Your task to perform on an android device: open a new tab in the chrome app Image 0: 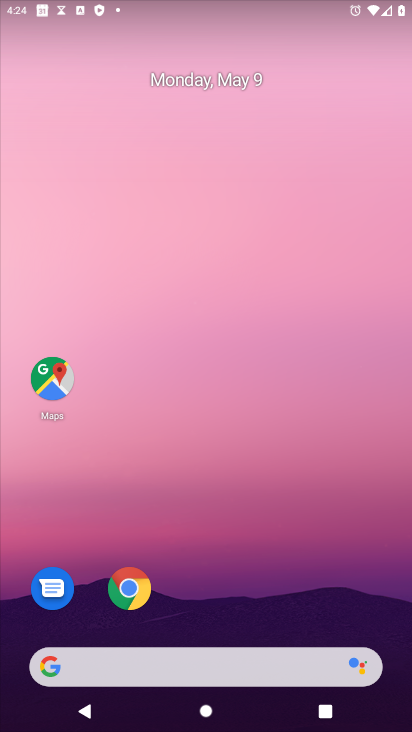
Step 0: click (133, 608)
Your task to perform on an android device: open a new tab in the chrome app Image 1: 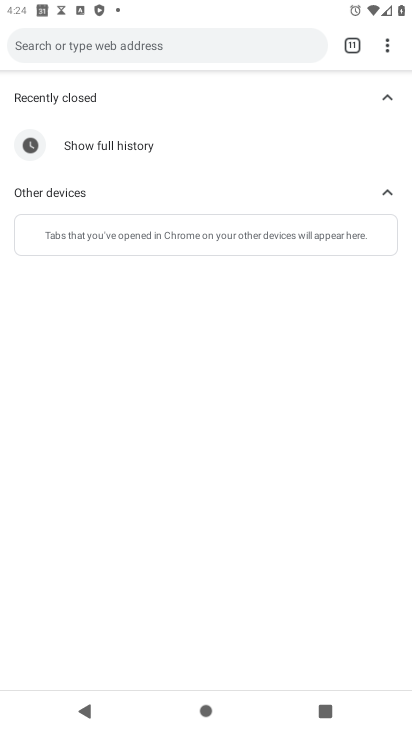
Step 1: click (387, 42)
Your task to perform on an android device: open a new tab in the chrome app Image 2: 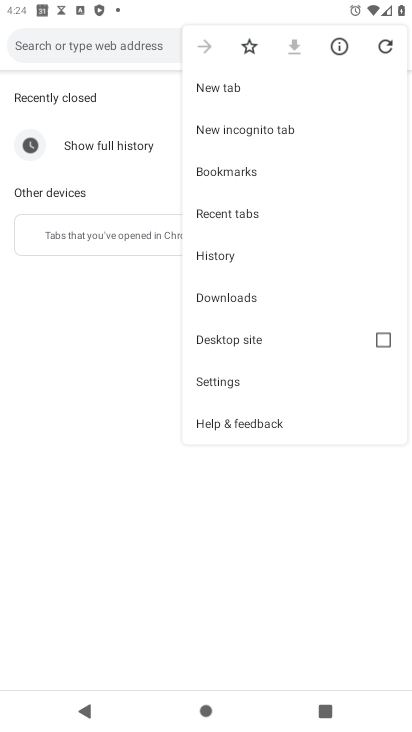
Step 2: click (318, 87)
Your task to perform on an android device: open a new tab in the chrome app Image 3: 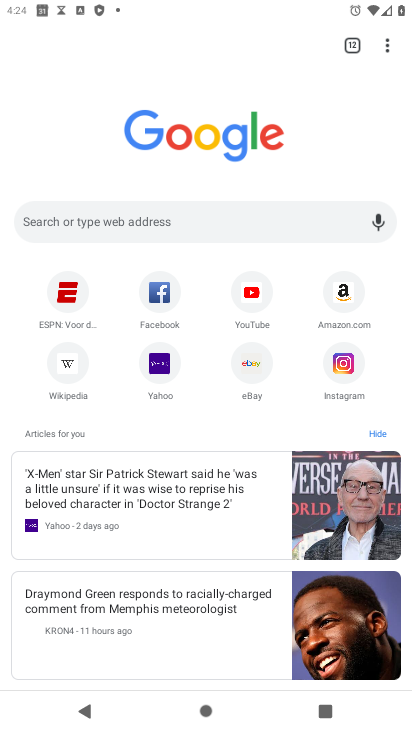
Step 3: task complete